Your task to perform on an android device: stop showing notifications on the lock screen Image 0: 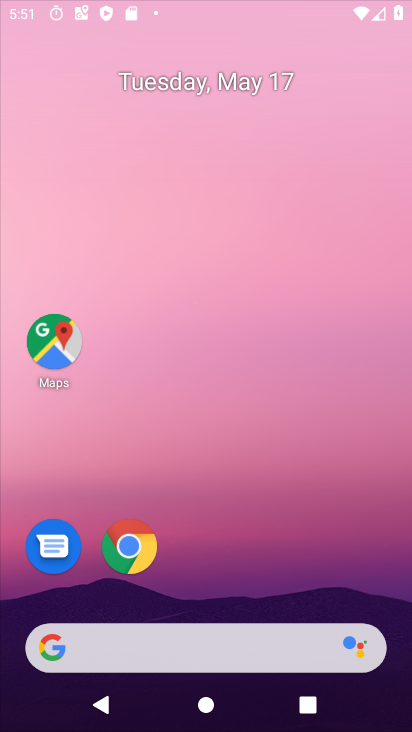
Step 0: drag from (207, 596) to (186, 3)
Your task to perform on an android device: stop showing notifications on the lock screen Image 1: 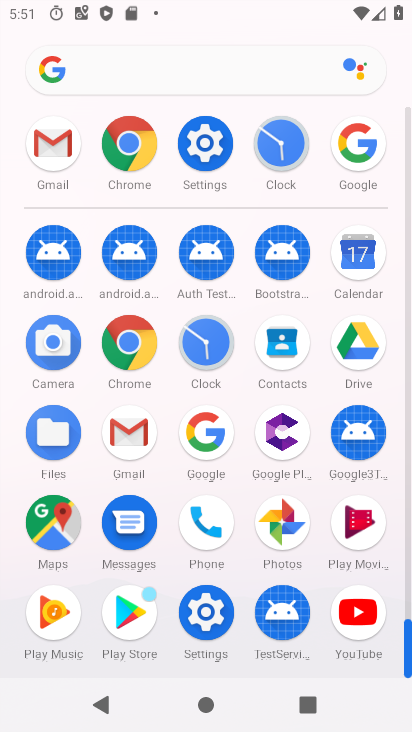
Step 1: click (198, 165)
Your task to perform on an android device: stop showing notifications on the lock screen Image 2: 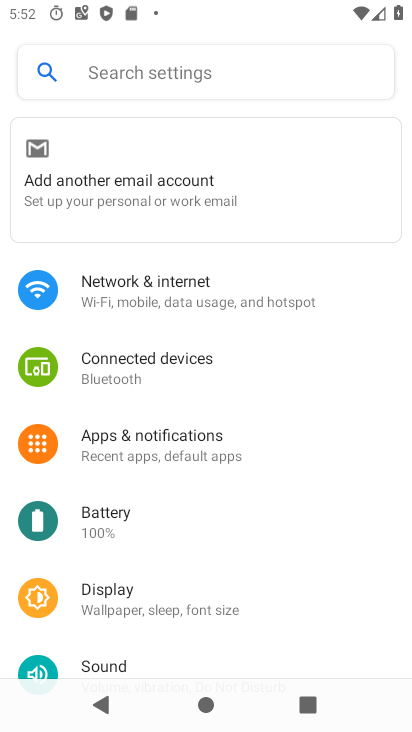
Step 2: drag from (146, 364) to (153, 310)
Your task to perform on an android device: stop showing notifications on the lock screen Image 3: 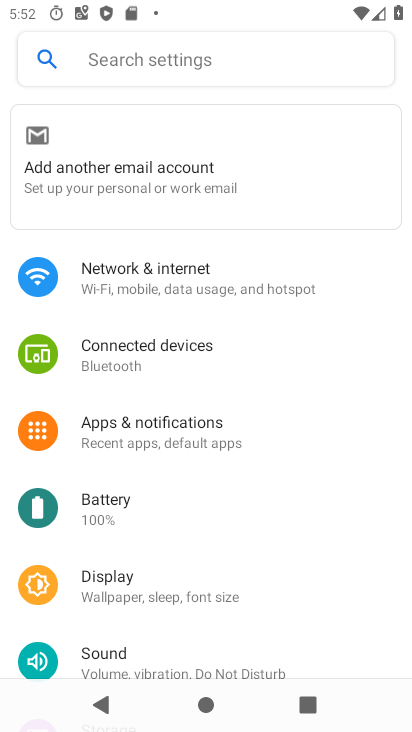
Step 3: drag from (130, 613) to (119, 216)
Your task to perform on an android device: stop showing notifications on the lock screen Image 4: 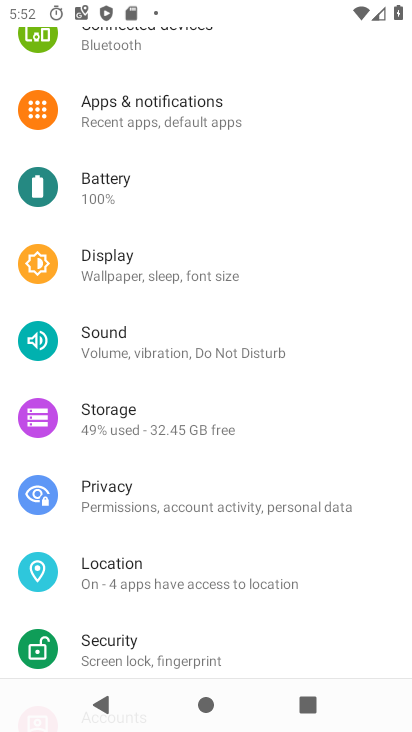
Step 4: click (118, 101)
Your task to perform on an android device: stop showing notifications on the lock screen Image 5: 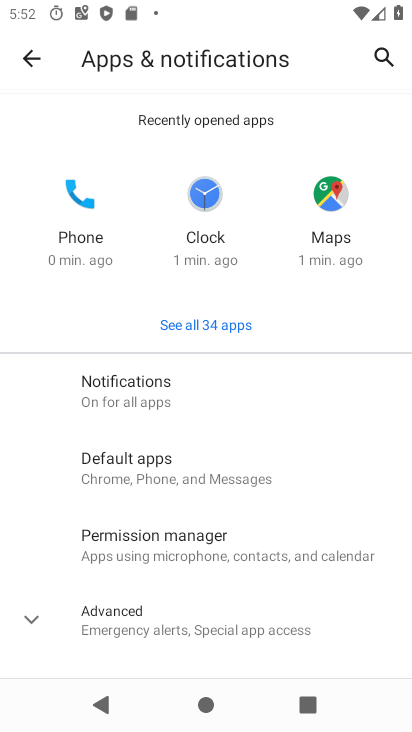
Step 5: click (120, 404)
Your task to perform on an android device: stop showing notifications on the lock screen Image 6: 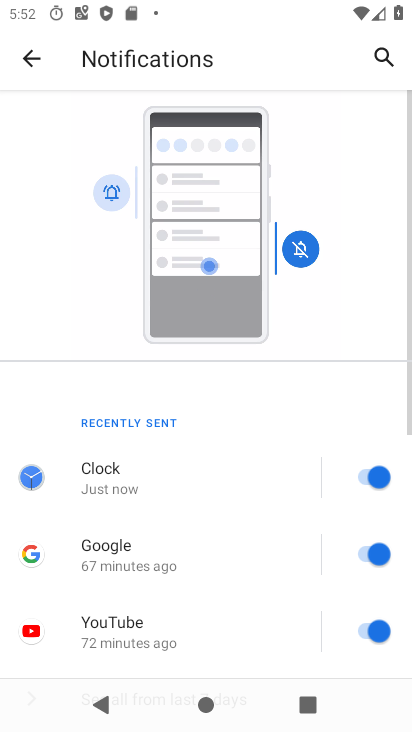
Step 6: drag from (158, 589) to (181, 237)
Your task to perform on an android device: stop showing notifications on the lock screen Image 7: 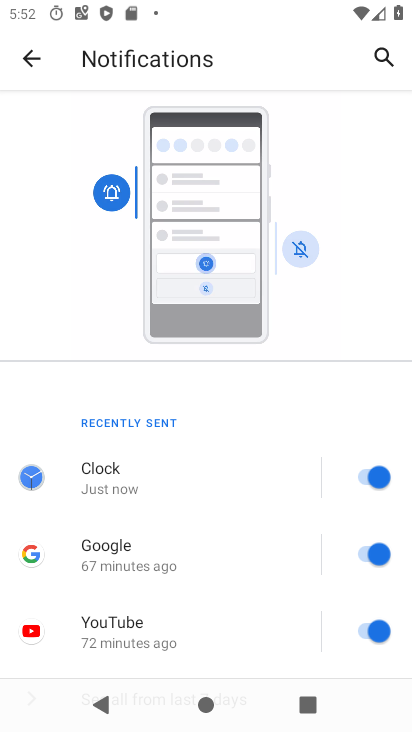
Step 7: drag from (220, 569) to (271, 141)
Your task to perform on an android device: stop showing notifications on the lock screen Image 8: 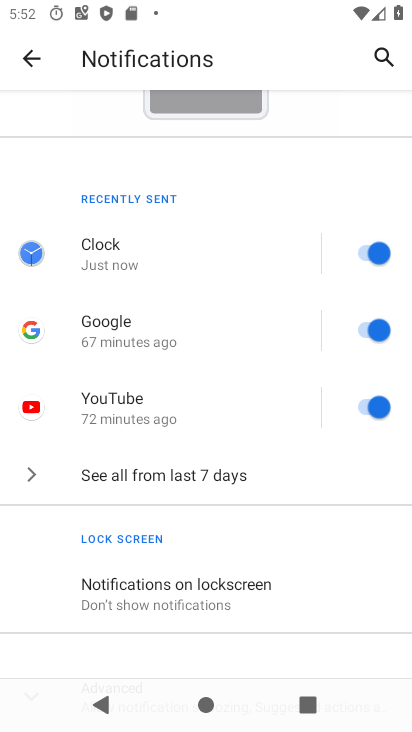
Step 8: click (126, 590)
Your task to perform on an android device: stop showing notifications on the lock screen Image 9: 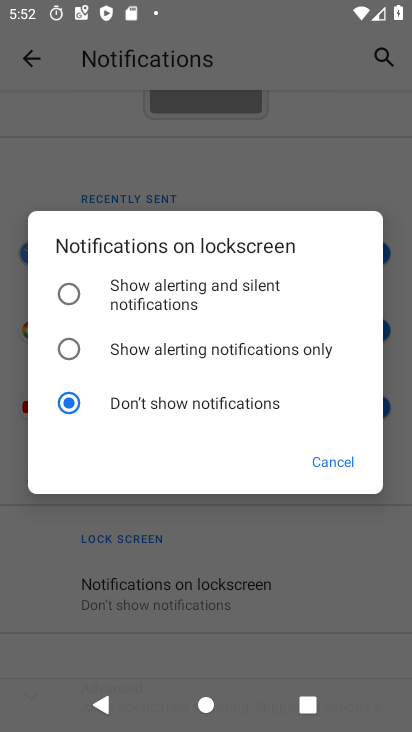
Step 9: click (67, 283)
Your task to perform on an android device: stop showing notifications on the lock screen Image 10: 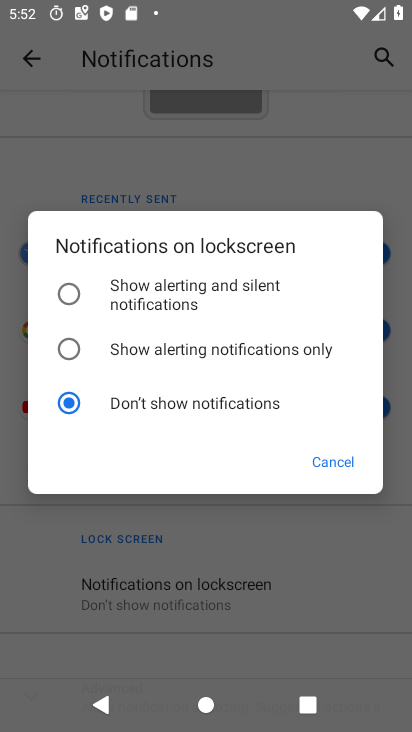
Step 10: click (77, 299)
Your task to perform on an android device: stop showing notifications on the lock screen Image 11: 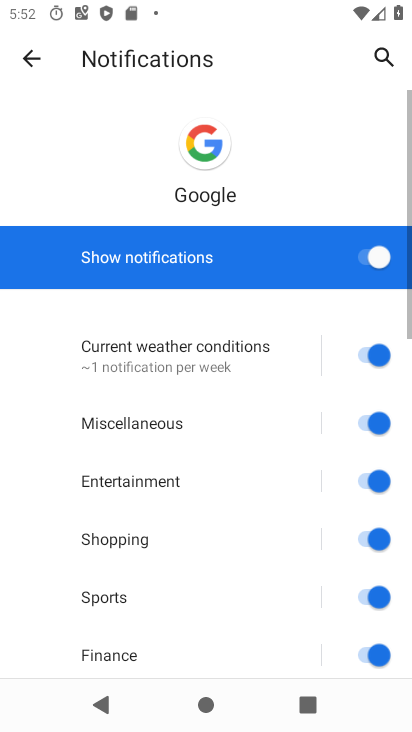
Step 11: task complete